Your task to perform on an android device: find which apps use the phone's location Image 0: 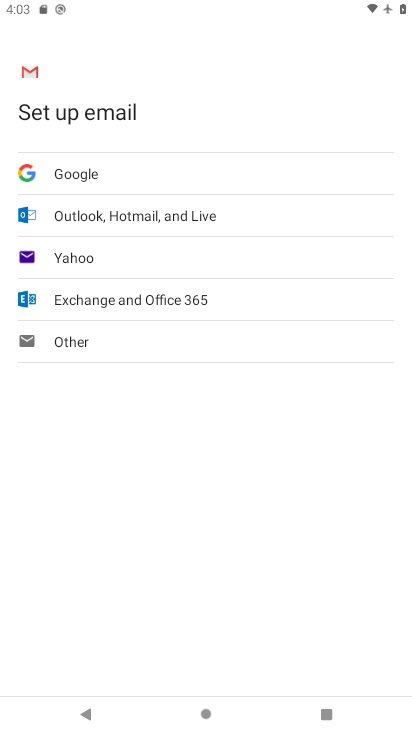
Step 0: press home button
Your task to perform on an android device: find which apps use the phone's location Image 1: 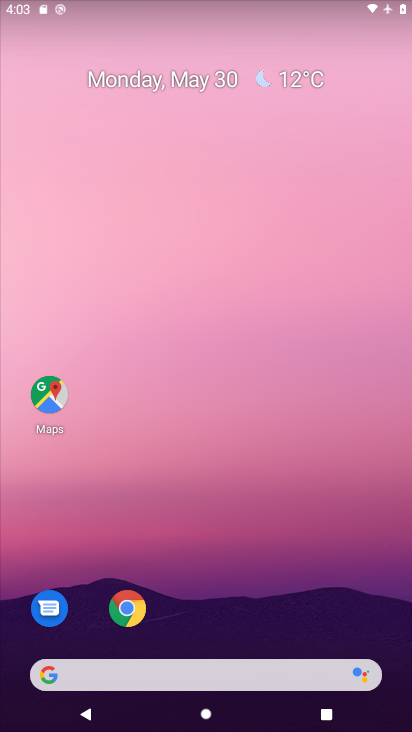
Step 1: drag from (214, 531) to (174, 31)
Your task to perform on an android device: find which apps use the phone's location Image 2: 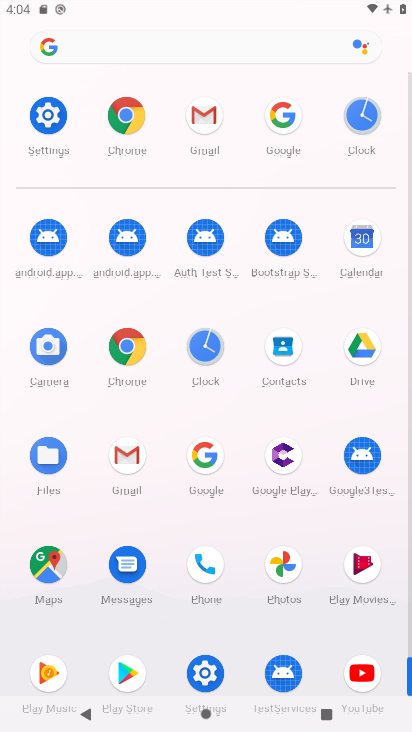
Step 2: click (200, 674)
Your task to perform on an android device: find which apps use the phone's location Image 3: 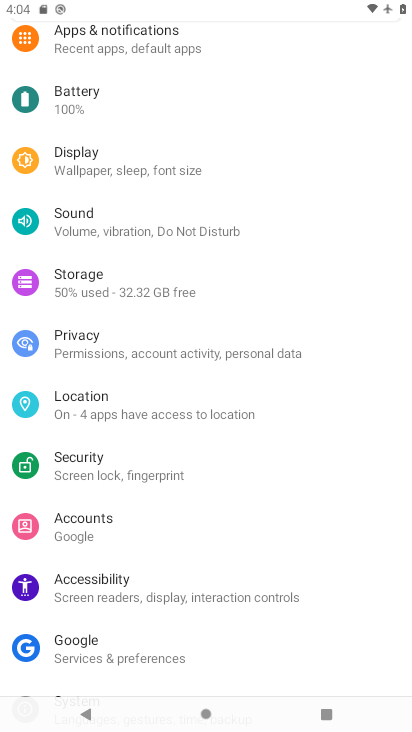
Step 3: click (131, 456)
Your task to perform on an android device: find which apps use the phone's location Image 4: 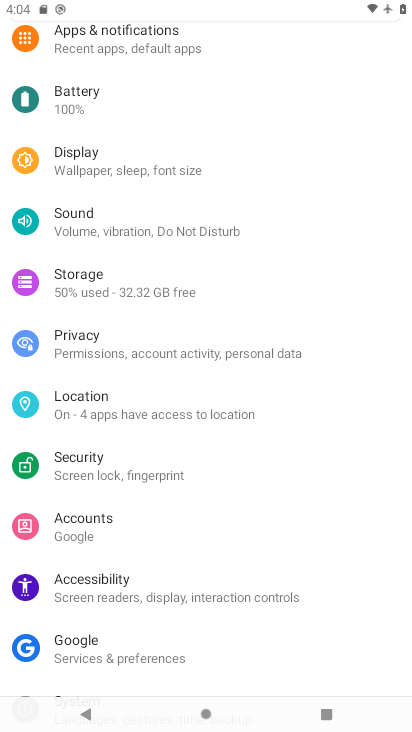
Step 4: click (150, 391)
Your task to perform on an android device: find which apps use the phone's location Image 5: 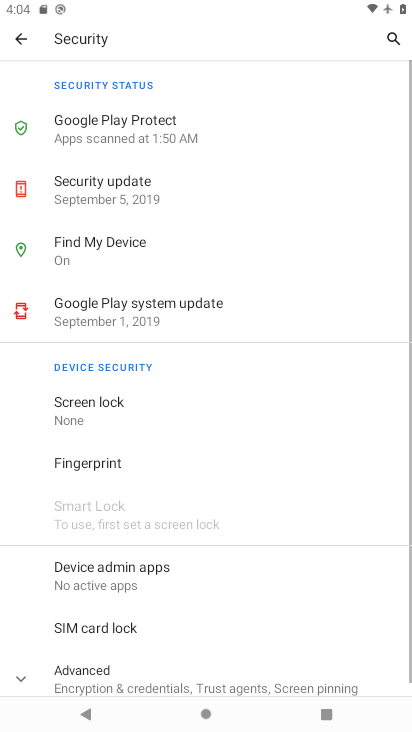
Step 5: press back button
Your task to perform on an android device: find which apps use the phone's location Image 6: 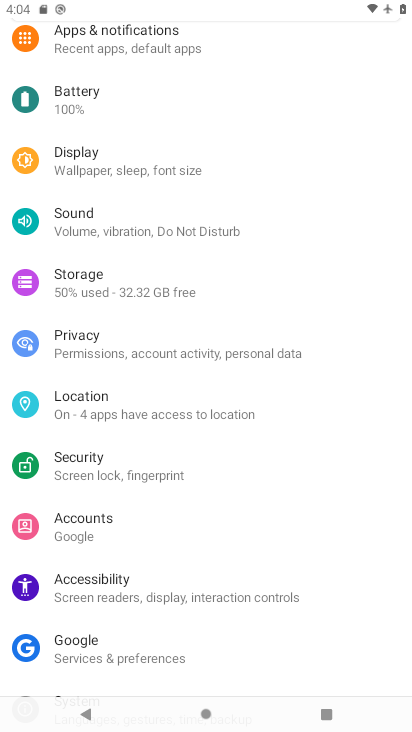
Step 6: click (127, 412)
Your task to perform on an android device: find which apps use the phone's location Image 7: 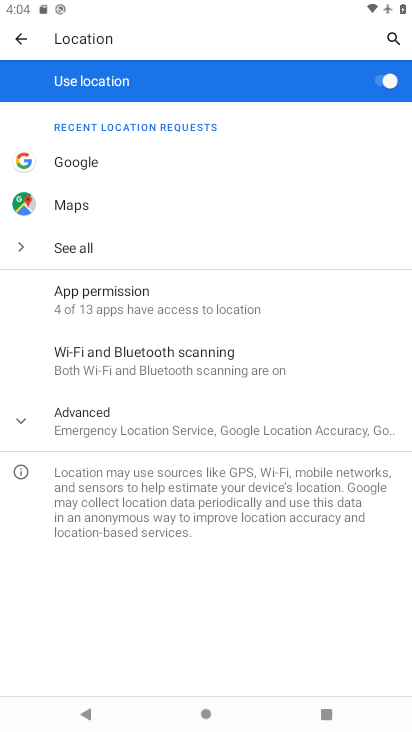
Step 7: click (167, 305)
Your task to perform on an android device: find which apps use the phone's location Image 8: 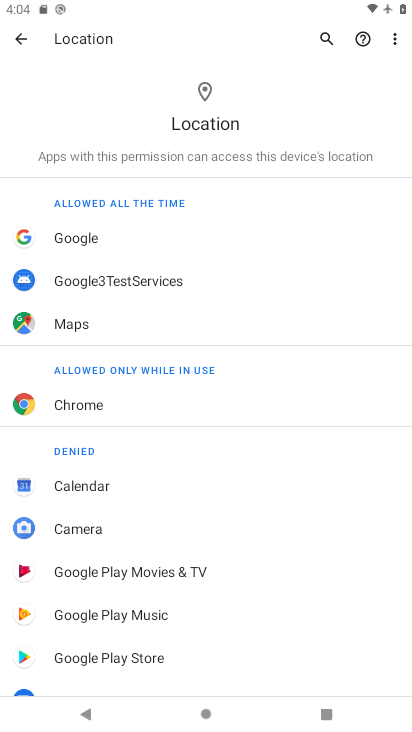
Step 8: task complete